Your task to perform on an android device: check data usage Image 0: 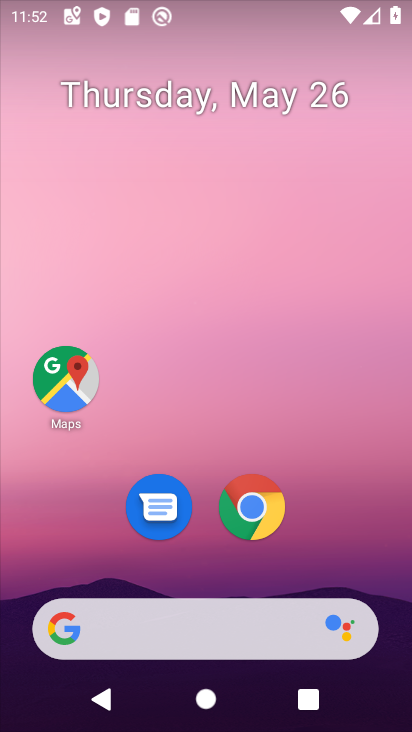
Step 0: drag from (326, 502) to (342, 128)
Your task to perform on an android device: check data usage Image 1: 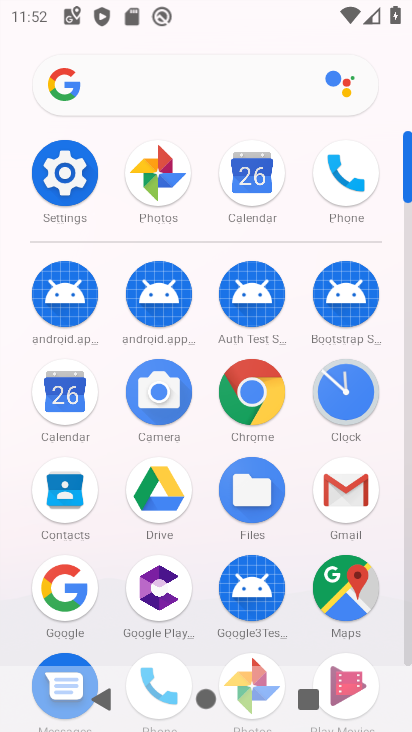
Step 1: click (93, 168)
Your task to perform on an android device: check data usage Image 2: 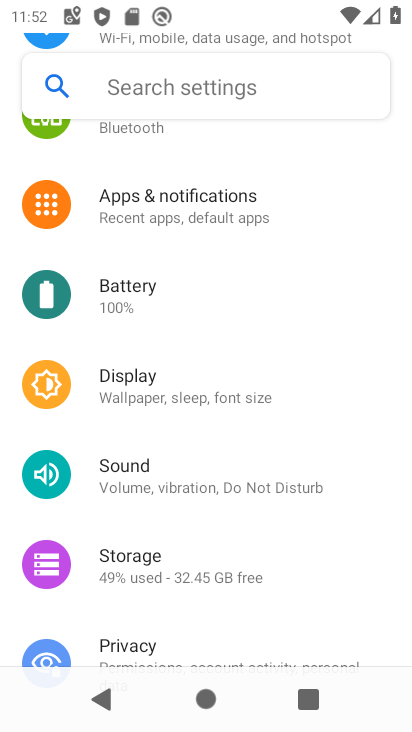
Step 2: drag from (210, 211) to (191, 648)
Your task to perform on an android device: check data usage Image 3: 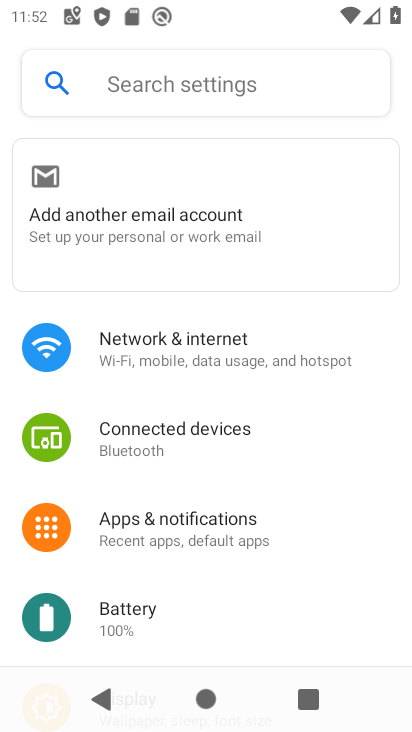
Step 3: drag from (217, 610) to (305, 246)
Your task to perform on an android device: check data usage Image 4: 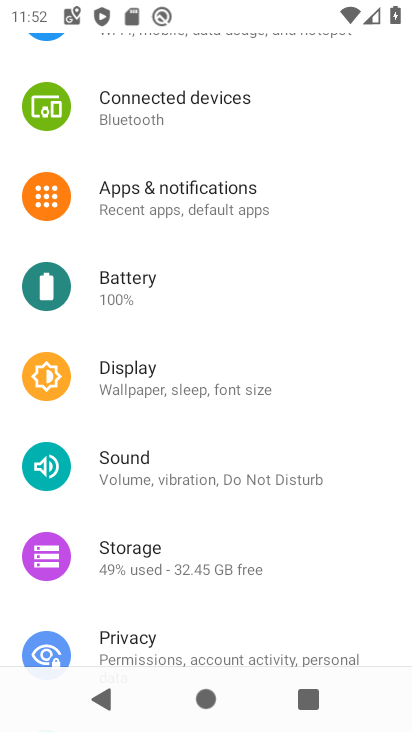
Step 4: click (180, 567)
Your task to perform on an android device: check data usage Image 5: 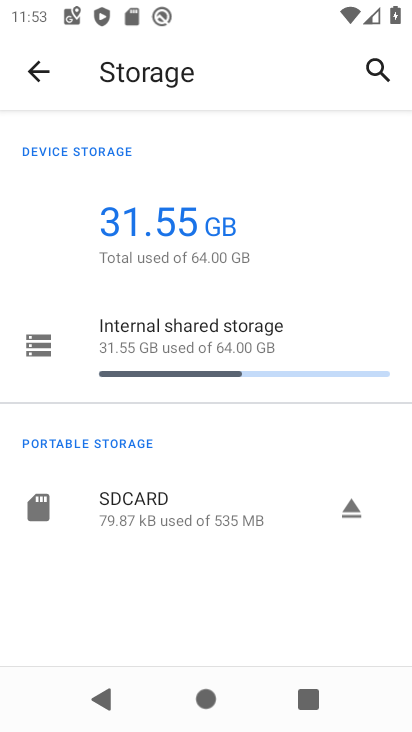
Step 5: task complete